Your task to perform on an android device: Go to Google Image 0: 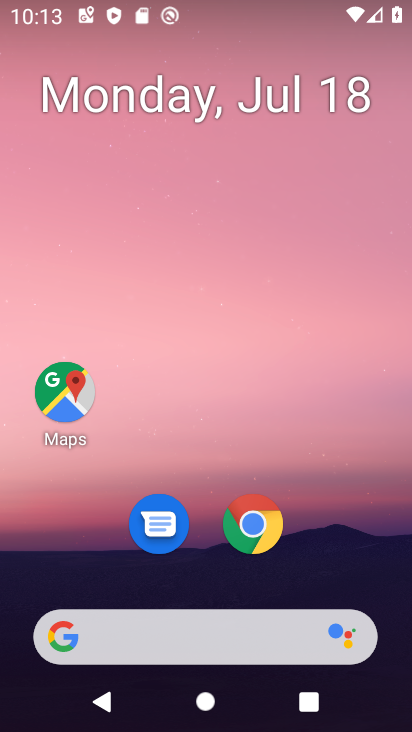
Step 0: click (254, 650)
Your task to perform on an android device: Go to Google Image 1: 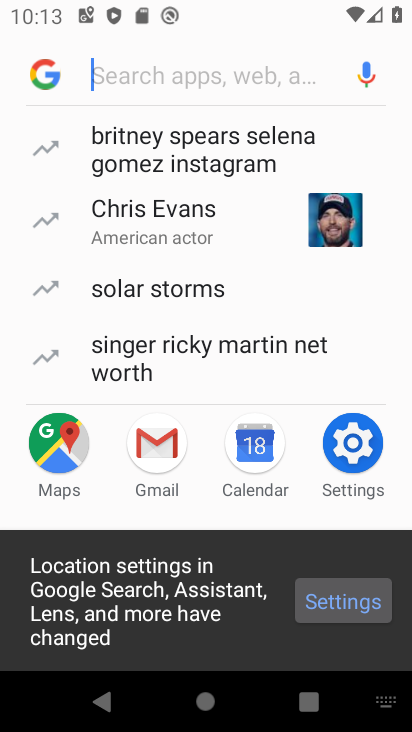
Step 1: click (49, 78)
Your task to perform on an android device: Go to Google Image 2: 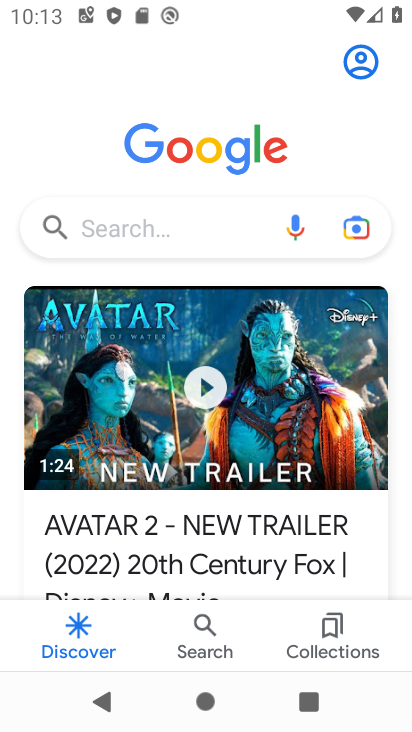
Step 2: task complete